Your task to perform on an android device: Go to Android settings Image 0: 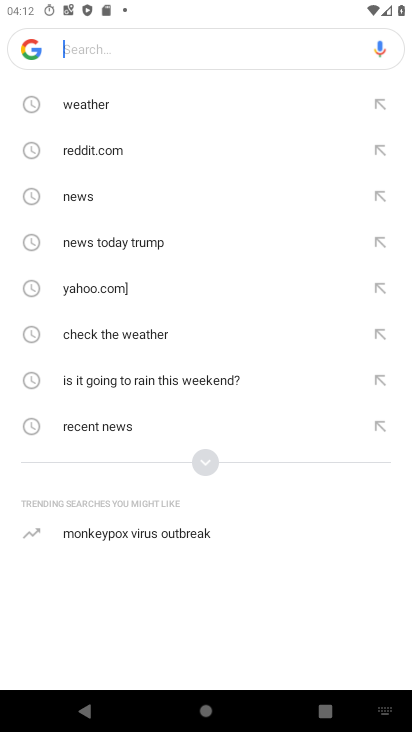
Step 0: press home button
Your task to perform on an android device: Go to Android settings Image 1: 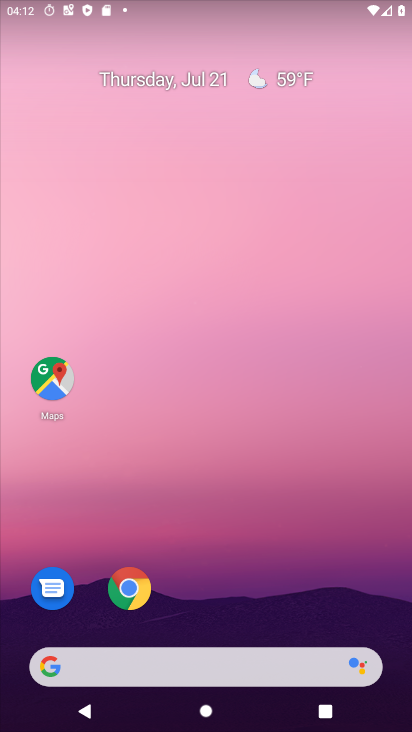
Step 1: drag from (227, 589) to (250, 78)
Your task to perform on an android device: Go to Android settings Image 2: 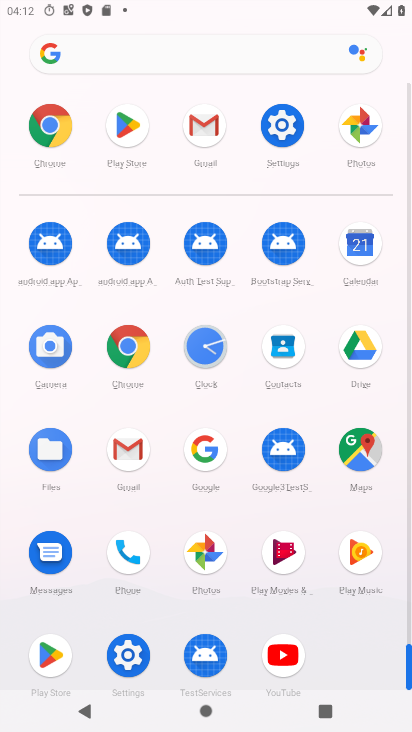
Step 2: click (130, 647)
Your task to perform on an android device: Go to Android settings Image 3: 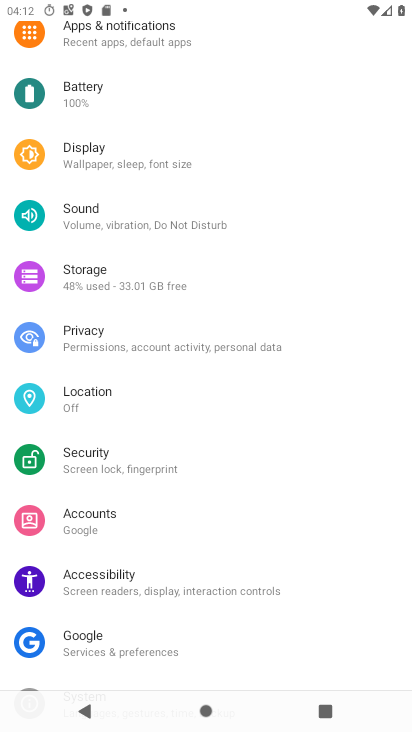
Step 3: drag from (120, 580) to (144, 237)
Your task to perform on an android device: Go to Android settings Image 4: 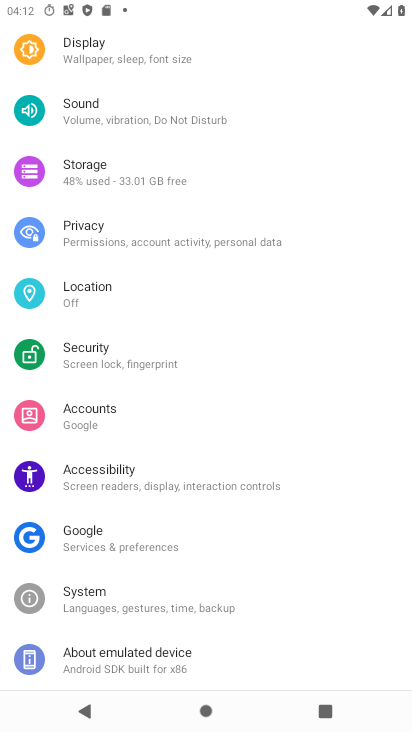
Step 4: click (100, 656)
Your task to perform on an android device: Go to Android settings Image 5: 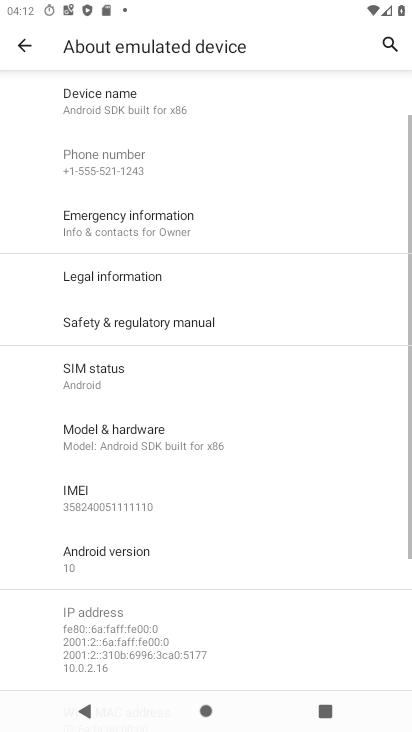
Step 5: click (127, 558)
Your task to perform on an android device: Go to Android settings Image 6: 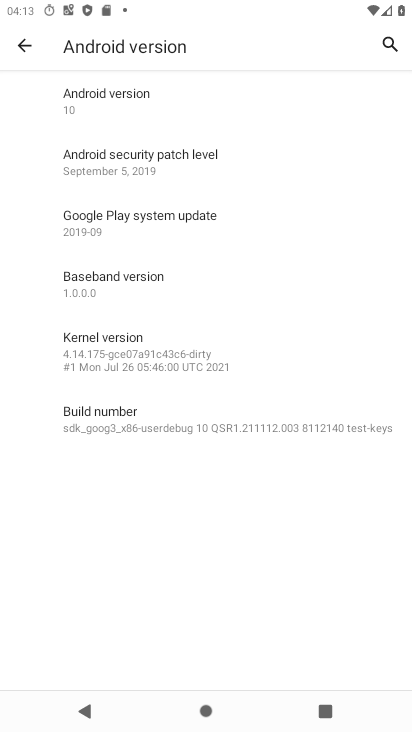
Step 6: task complete